Your task to perform on an android device: toggle notification dots Image 0: 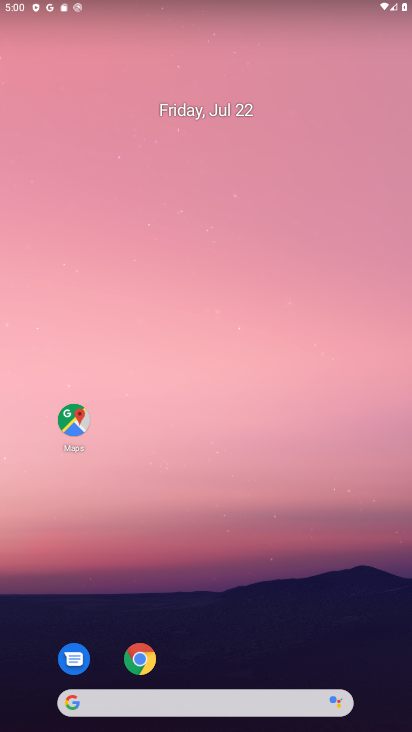
Step 0: drag from (260, 264) to (274, 110)
Your task to perform on an android device: toggle notification dots Image 1: 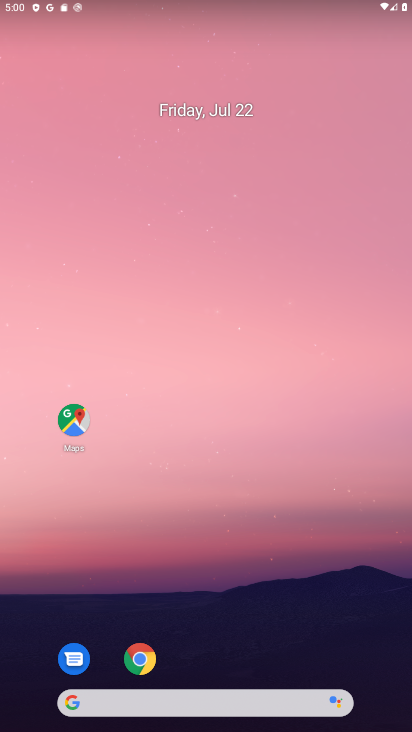
Step 1: drag from (210, 664) to (214, 18)
Your task to perform on an android device: toggle notification dots Image 2: 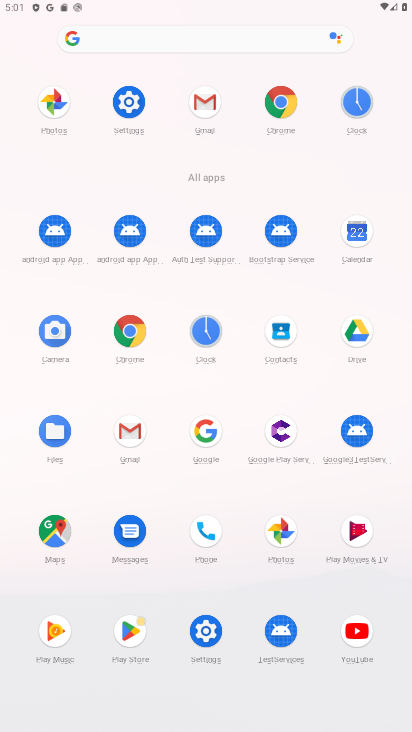
Step 2: click (129, 99)
Your task to perform on an android device: toggle notification dots Image 3: 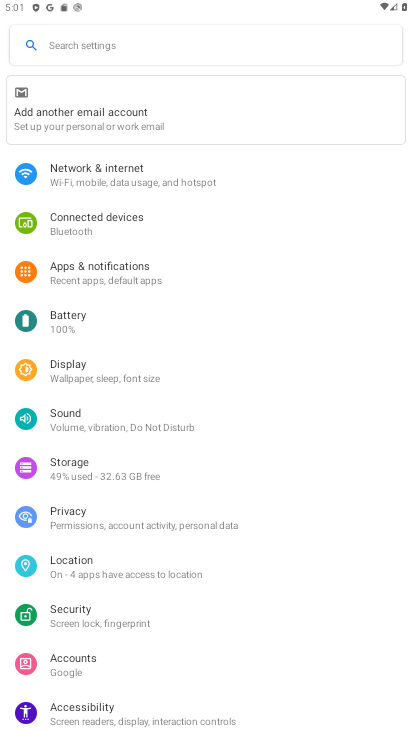
Step 3: click (122, 266)
Your task to perform on an android device: toggle notification dots Image 4: 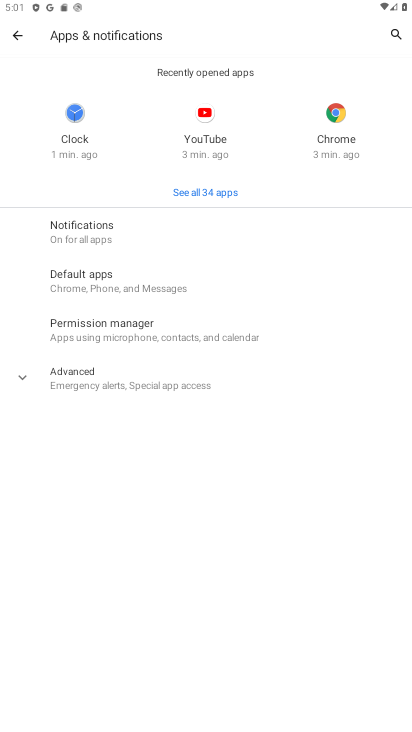
Step 4: click (107, 223)
Your task to perform on an android device: toggle notification dots Image 5: 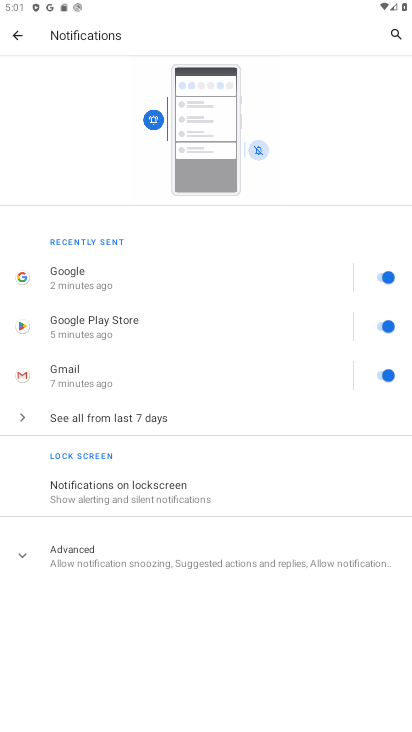
Step 5: click (57, 545)
Your task to perform on an android device: toggle notification dots Image 6: 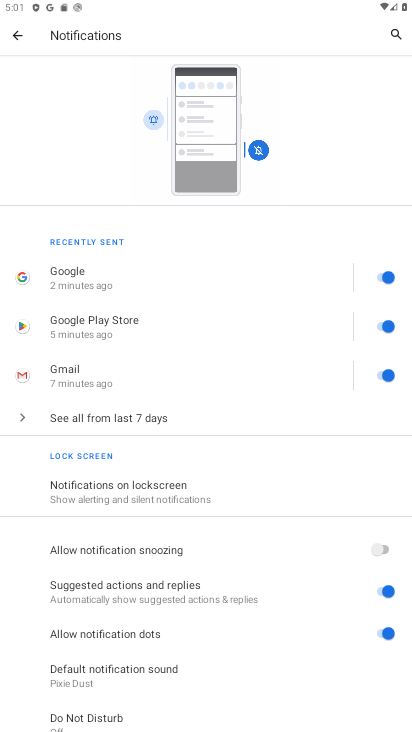
Step 6: click (385, 629)
Your task to perform on an android device: toggle notification dots Image 7: 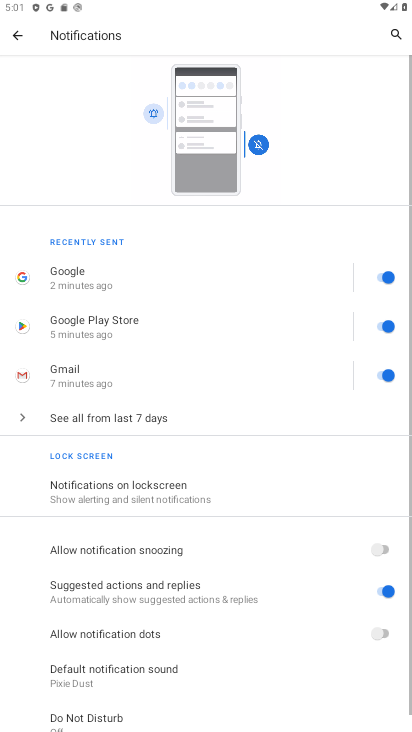
Step 7: task complete